Your task to perform on an android device: Search for flights from NYC to Tokyo Image 0: 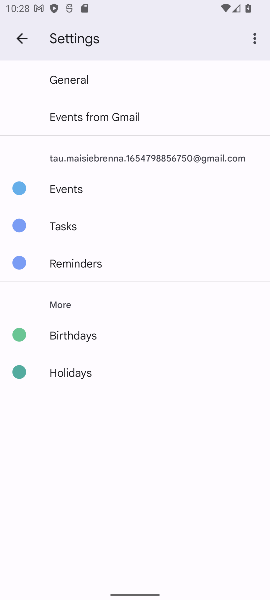
Step 0: press home button
Your task to perform on an android device: Search for flights from NYC to Tokyo Image 1: 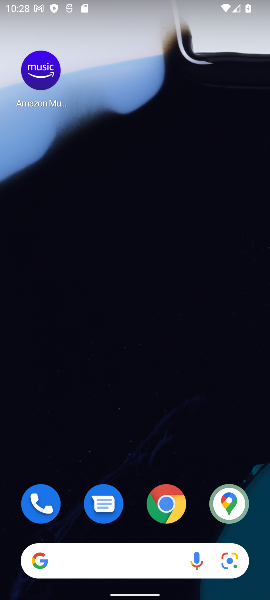
Step 1: click (166, 505)
Your task to perform on an android device: Search for flights from NYC to Tokyo Image 2: 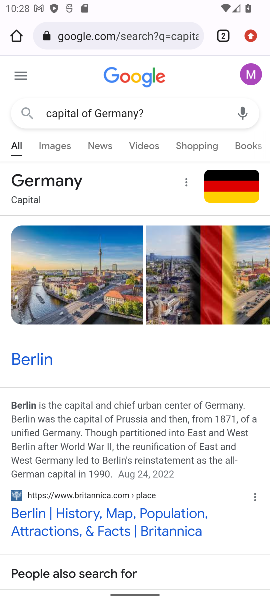
Step 2: click (108, 21)
Your task to perform on an android device: Search for flights from NYC to Tokyo Image 3: 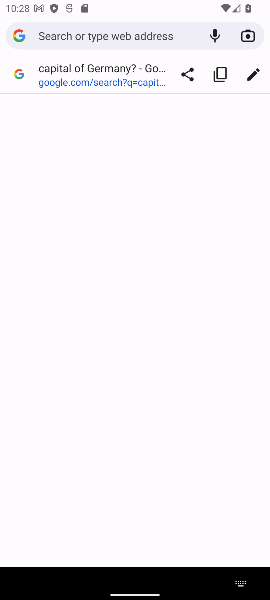
Step 3: type "flights from NYC to Tokyo"
Your task to perform on an android device: Search for flights from NYC to Tokyo Image 4: 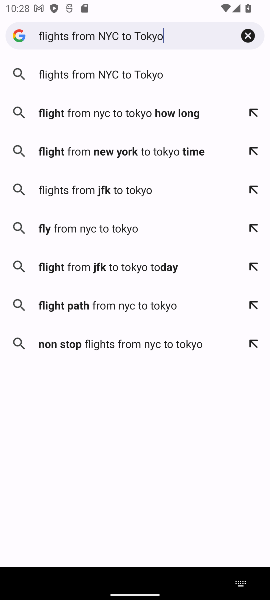
Step 4: click (59, 70)
Your task to perform on an android device: Search for flights from NYC to Tokyo Image 5: 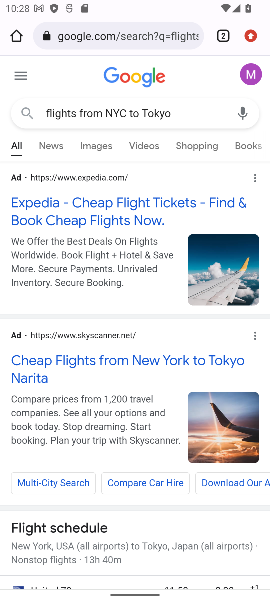
Step 5: click (56, 197)
Your task to perform on an android device: Search for flights from NYC to Tokyo Image 6: 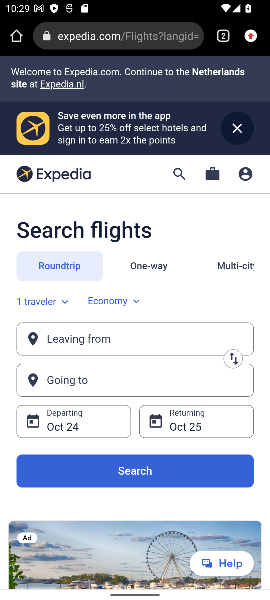
Step 6: click (90, 332)
Your task to perform on an android device: Search for flights from NYC to Tokyo Image 7: 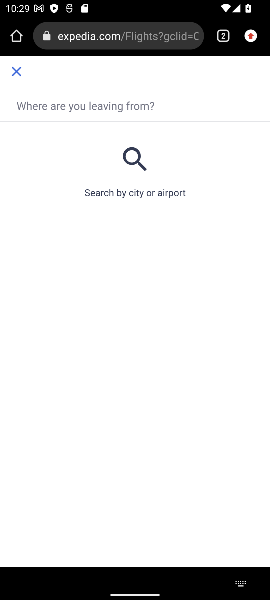
Step 7: type " NYC"
Your task to perform on an android device: Search for flights from NYC to Tokyo Image 8: 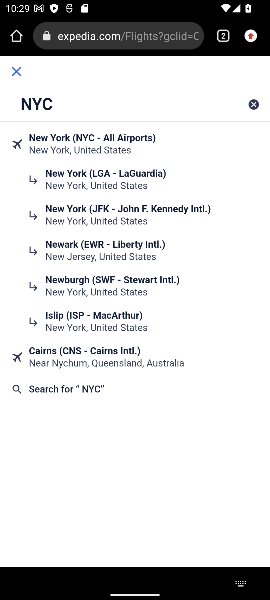
Step 8: click (52, 142)
Your task to perform on an android device: Search for flights from NYC to Tokyo Image 9: 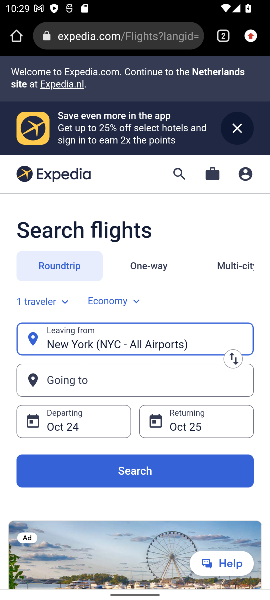
Step 9: click (73, 381)
Your task to perform on an android device: Search for flights from NYC to Tokyo Image 10: 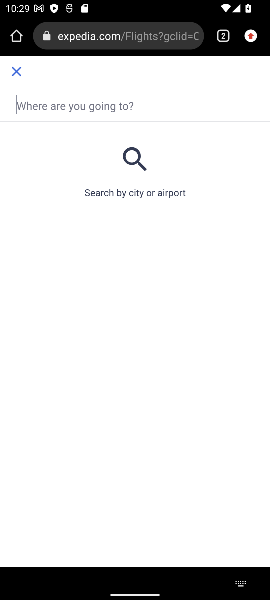
Step 10: type "Tokyo"
Your task to perform on an android device: Search for flights from NYC to Tokyo Image 11: 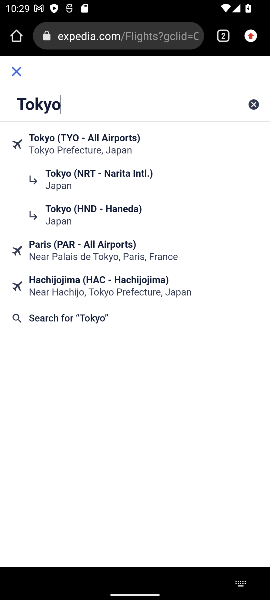
Step 11: click (38, 144)
Your task to perform on an android device: Search for flights from NYC to Tokyo Image 12: 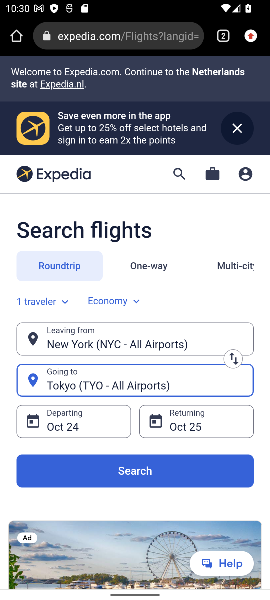
Step 12: click (129, 471)
Your task to perform on an android device: Search for flights from NYC to Tokyo Image 13: 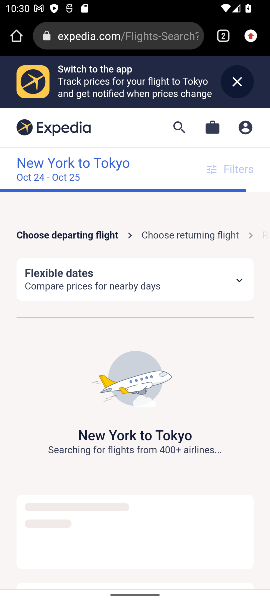
Step 13: task complete